Your task to perform on an android device: turn on airplane mode Image 0: 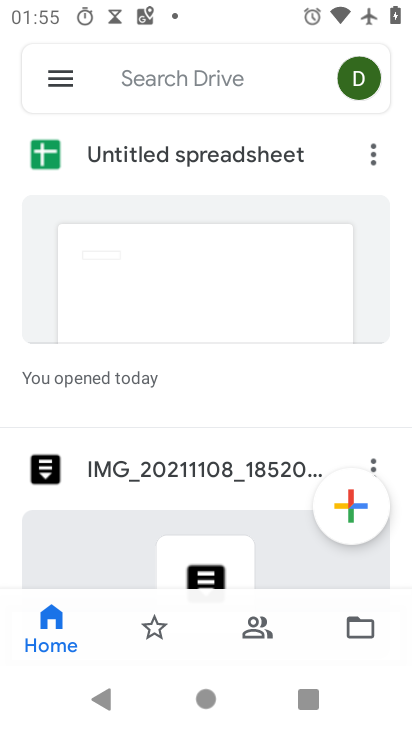
Step 0: press home button
Your task to perform on an android device: turn on airplane mode Image 1: 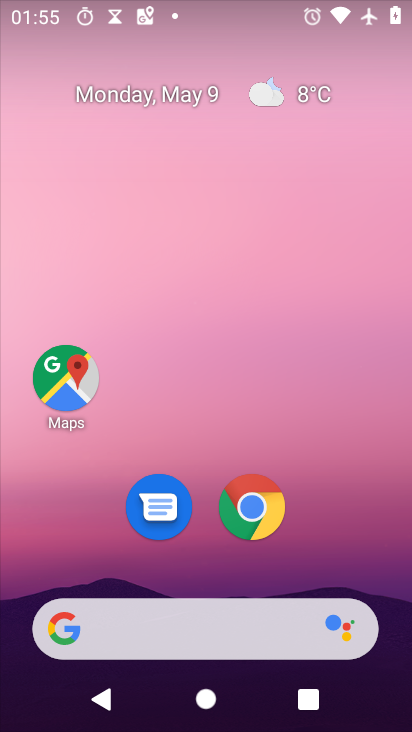
Step 1: drag from (230, 726) to (230, 175)
Your task to perform on an android device: turn on airplane mode Image 2: 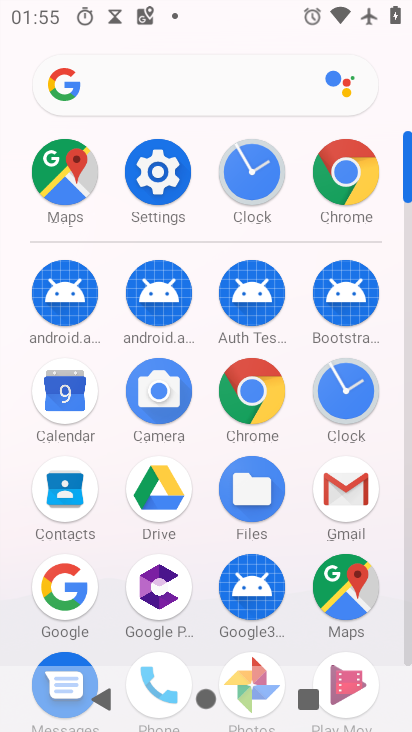
Step 2: click (150, 172)
Your task to perform on an android device: turn on airplane mode Image 3: 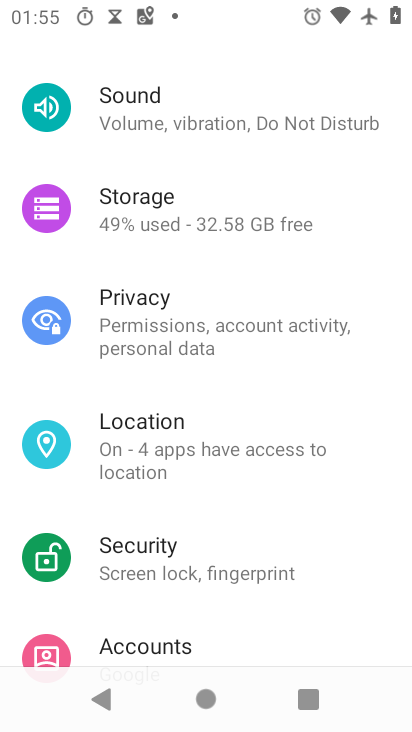
Step 3: drag from (283, 113) to (281, 520)
Your task to perform on an android device: turn on airplane mode Image 4: 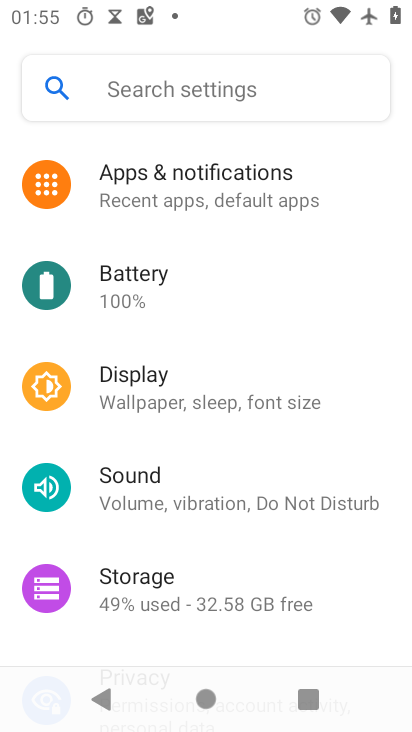
Step 4: drag from (306, 163) to (284, 576)
Your task to perform on an android device: turn on airplane mode Image 5: 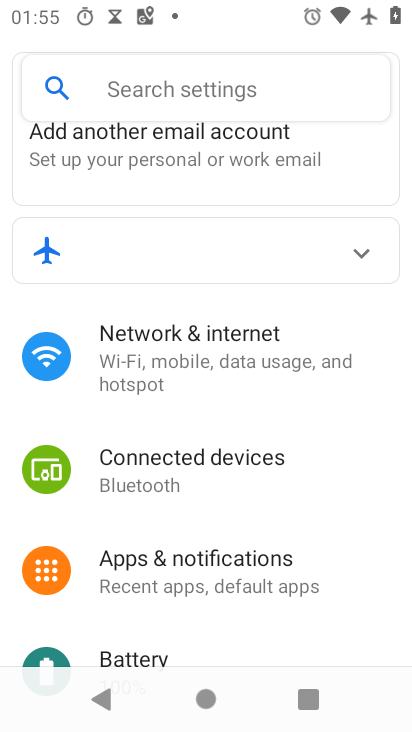
Step 5: click (150, 362)
Your task to perform on an android device: turn on airplane mode Image 6: 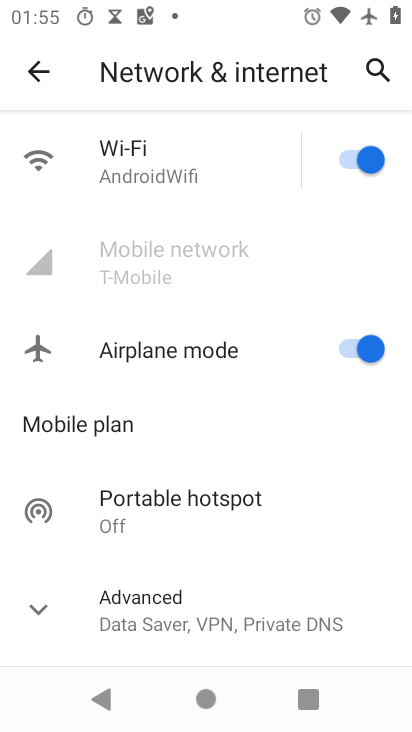
Step 6: task complete